Your task to perform on an android device: see creations saved in the google photos Image 0: 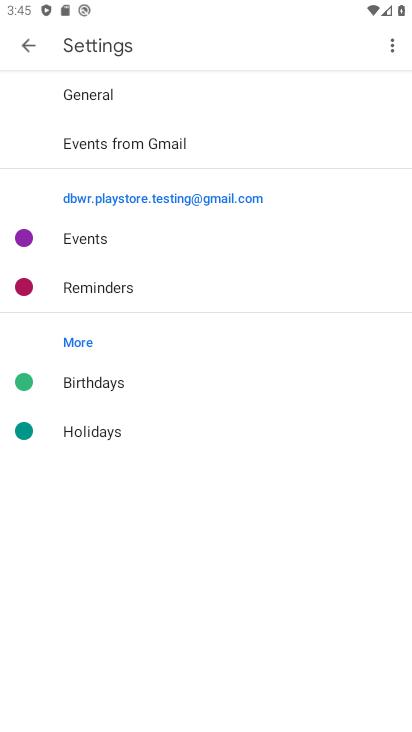
Step 0: press home button
Your task to perform on an android device: see creations saved in the google photos Image 1: 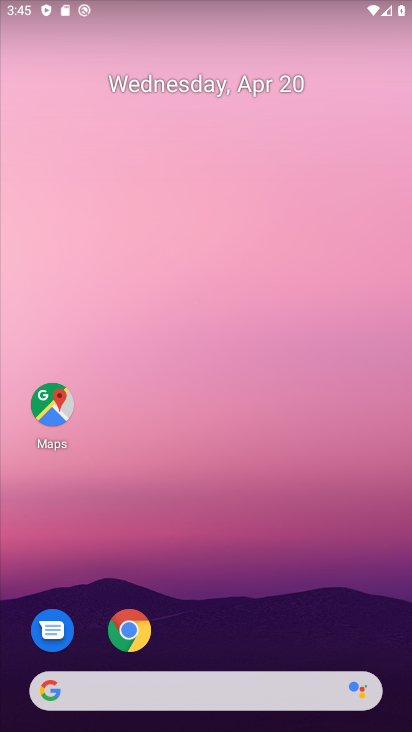
Step 1: drag from (361, 712) to (348, 53)
Your task to perform on an android device: see creations saved in the google photos Image 2: 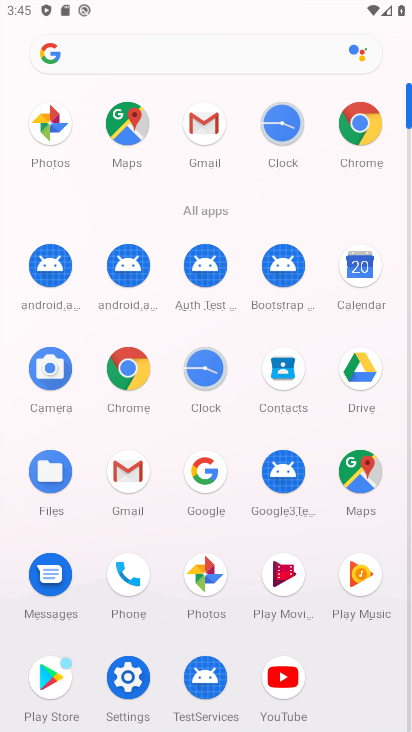
Step 2: click (195, 577)
Your task to perform on an android device: see creations saved in the google photos Image 3: 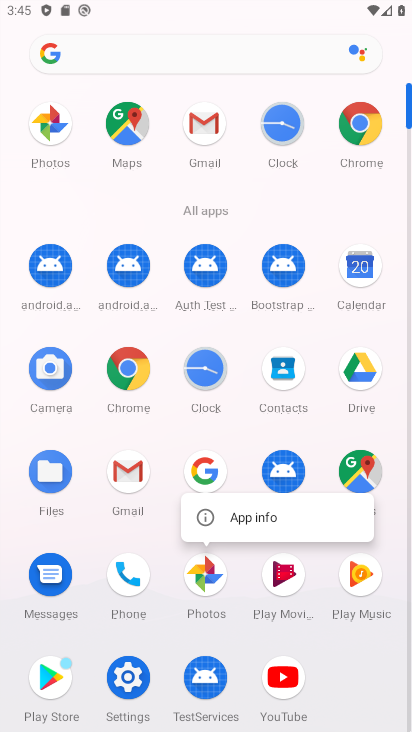
Step 3: click (195, 577)
Your task to perform on an android device: see creations saved in the google photos Image 4: 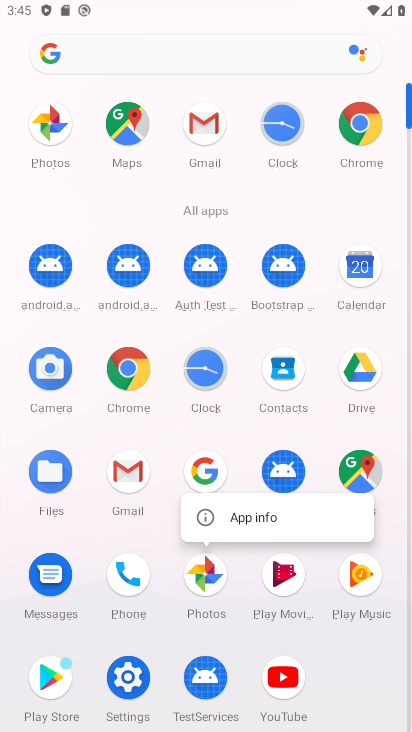
Step 4: click (195, 577)
Your task to perform on an android device: see creations saved in the google photos Image 5: 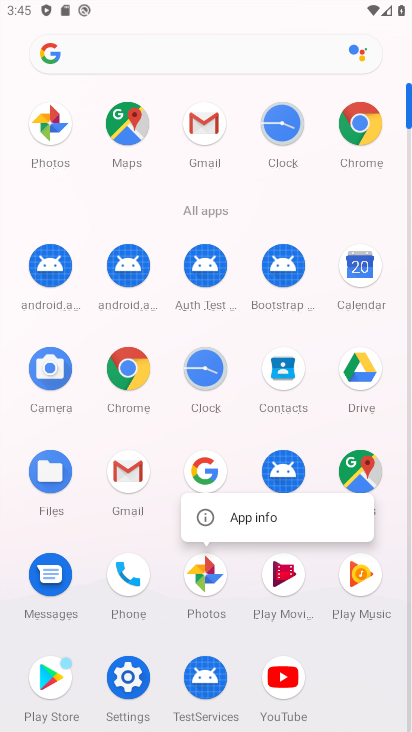
Step 5: click (195, 577)
Your task to perform on an android device: see creations saved in the google photos Image 6: 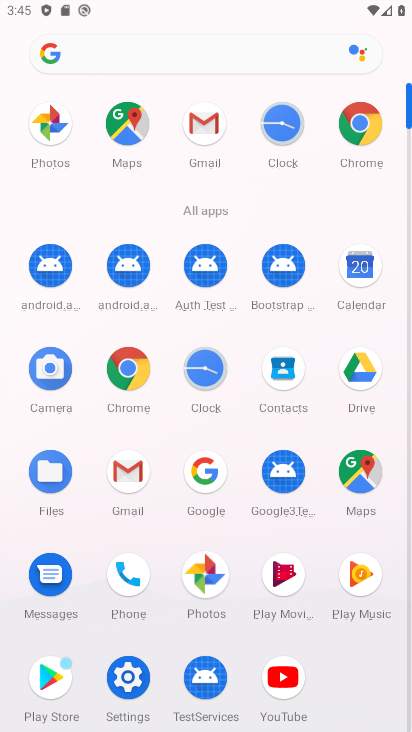
Step 6: click (195, 577)
Your task to perform on an android device: see creations saved in the google photos Image 7: 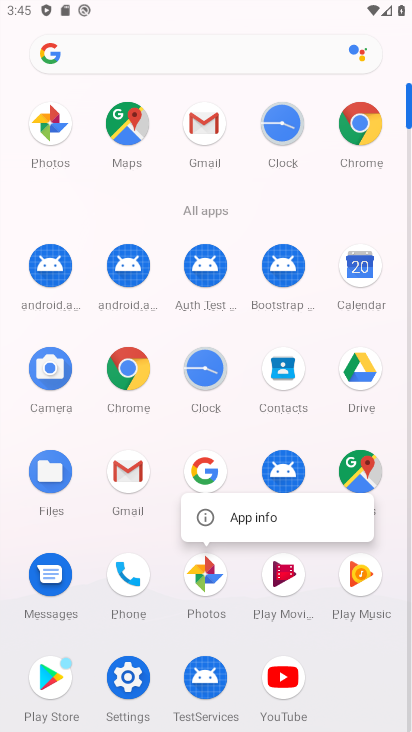
Step 7: click (216, 572)
Your task to perform on an android device: see creations saved in the google photos Image 8: 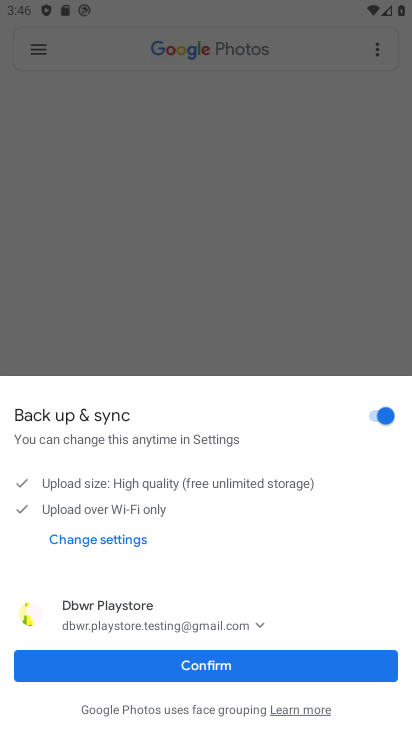
Step 8: click (246, 662)
Your task to perform on an android device: see creations saved in the google photos Image 9: 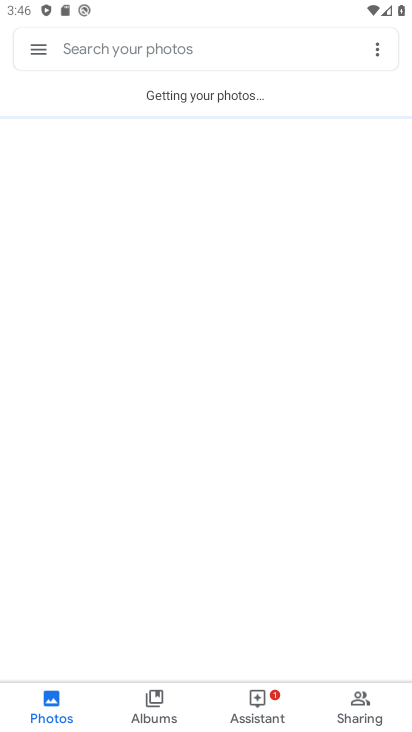
Step 9: click (367, 699)
Your task to perform on an android device: see creations saved in the google photos Image 10: 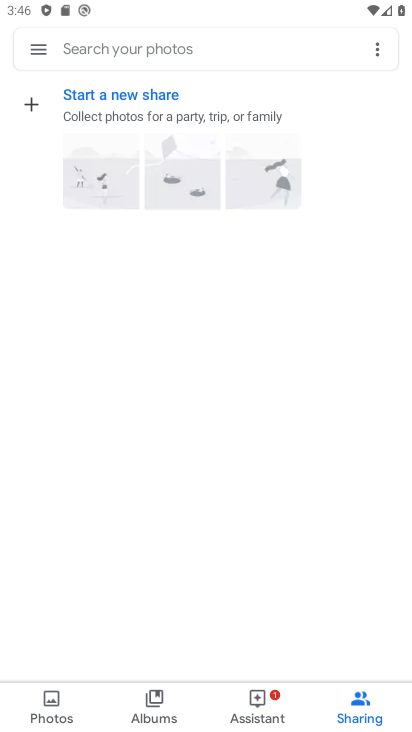
Step 10: click (260, 708)
Your task to perform on an android device: see creations saved in the google photos Image 11: 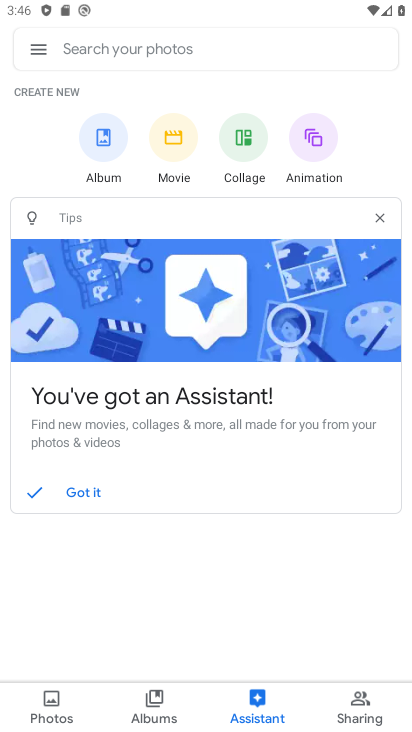
Step 11: drag from (163, 657) to (190, 121)
Your task to perform on an android device: see creations saved in the google photos Image 12: 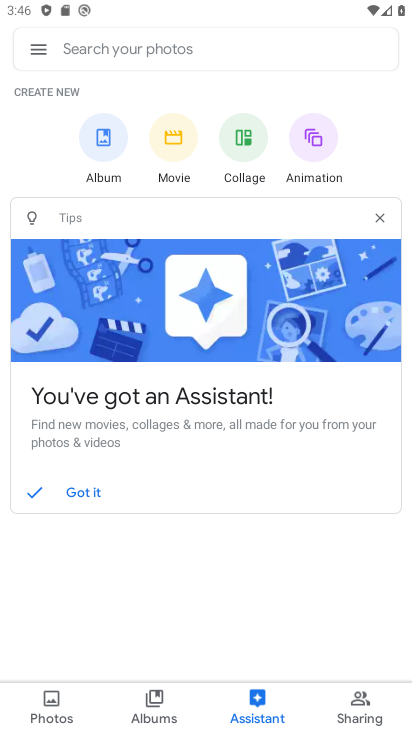
Step 12: click (160, 708)
Your task to perform on an android device: see creations saved in the google photos Image 13: 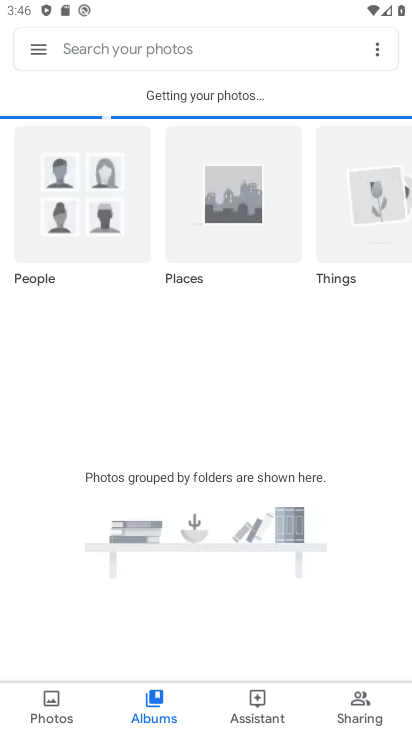
Step 13: task complete